Your task to perform on an android device: What's the price of the Hisense TV? Image 0: 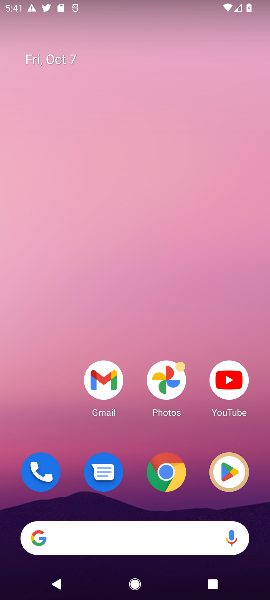
Step 0: click (168, 467)
Your task to perform on an android device: What's the price of the Hisense TV? Image 1: 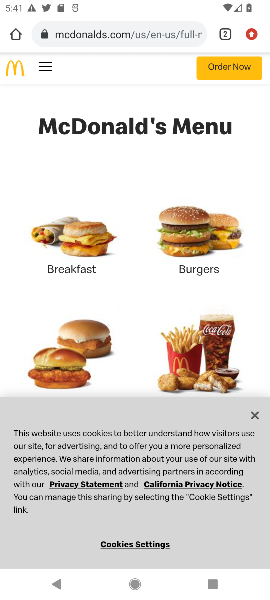
Step 1: click (146, 31)
Your task to perform on an android device: What's the price of the Hisense TV? Image 2: 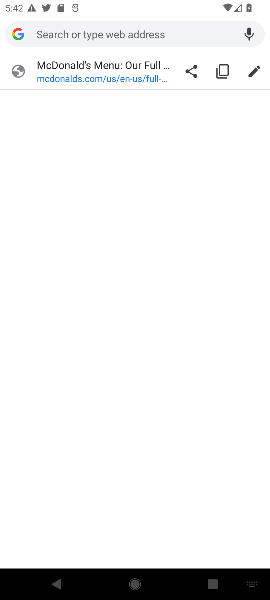
Step 2: type "price of the Hisense TV"
Your task to perform on an android device: What's the price of the Hisense TV? Image 3: 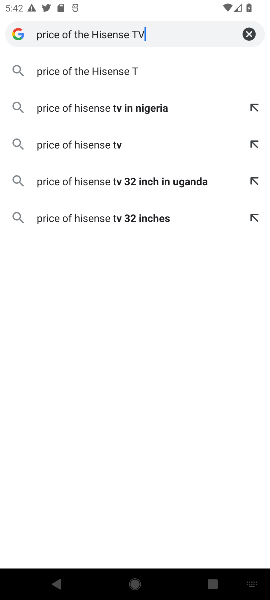
Step 3: type ""
Your task to perform on an android device: What's the price of the Hisense TV? Image 4: 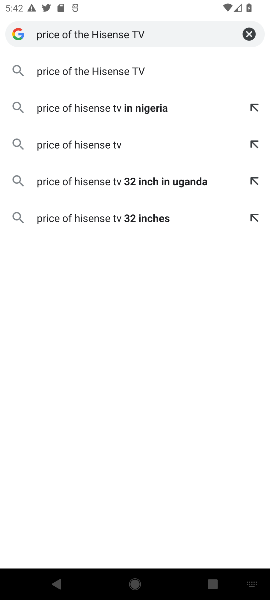
Step 4: press enter
Your task to perform on an android device: What's the price of the Hisense TV? Image 5: 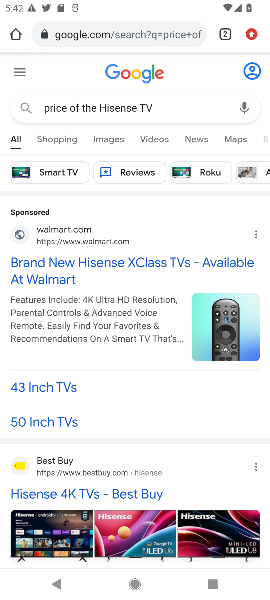
Step 5: drag from (184, 400) to (182, 231)
Your task to perform on an android device: What's the price of the Hisense TV? Image 6: 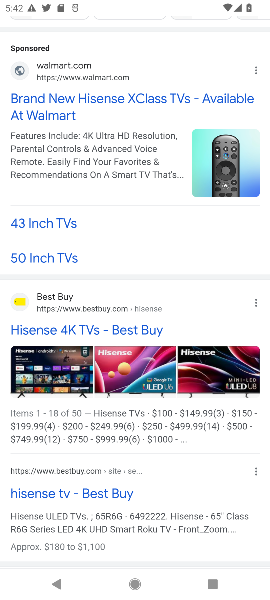
Step 6: click (177, 490)
Your task to perform on an android device: What's the price of the Hisense TV? Image 7: 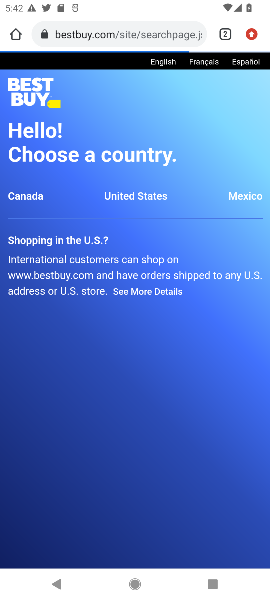
Step 7: click (74, 494)
Your task to perform on an android device: What's the price of the Hisense TV? Image 8: 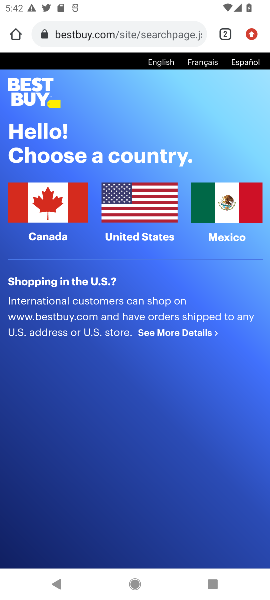
Step 8: click (50, 224)
Your task to perform on an android device: What's the price of the Hisense TV? Image 9: 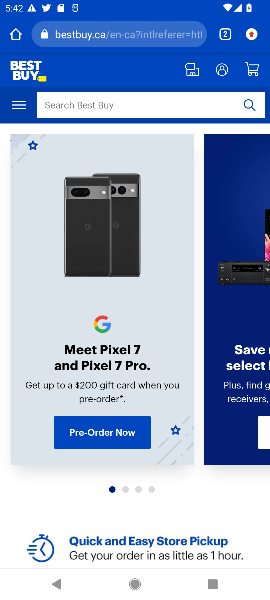
Step 9: task complete